Your task to perform on an android device: turn off picture-in-picture Image 0: 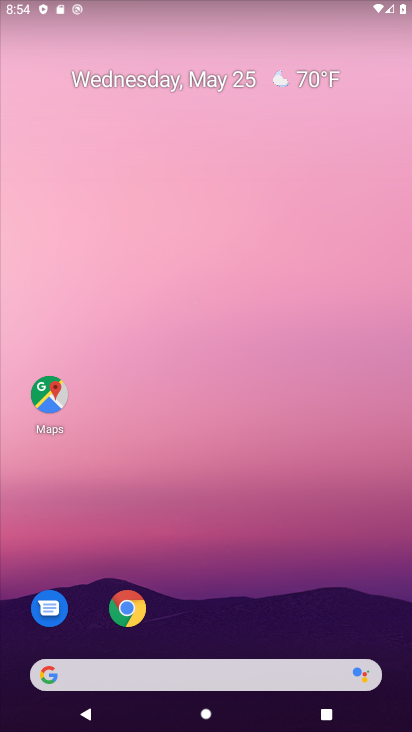
Step 0: drag from (274, 586) to (199, 9)
Your task to perform on an android device: turn off picture-in-picture Image 1: 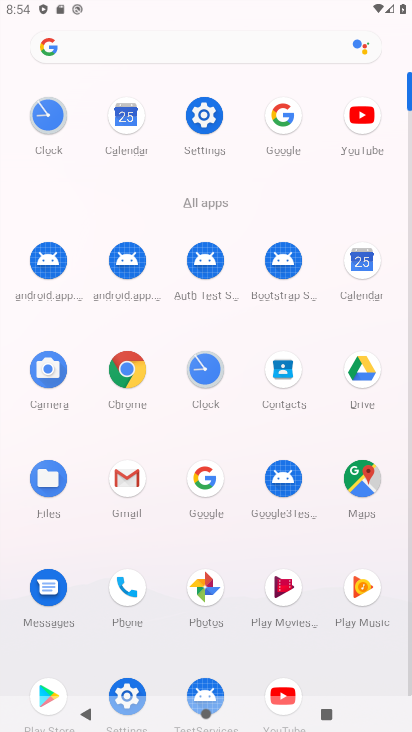
Step 1: click (217, 105)
Your task to perform on an android device: turn off picture-in-picture Image 2: 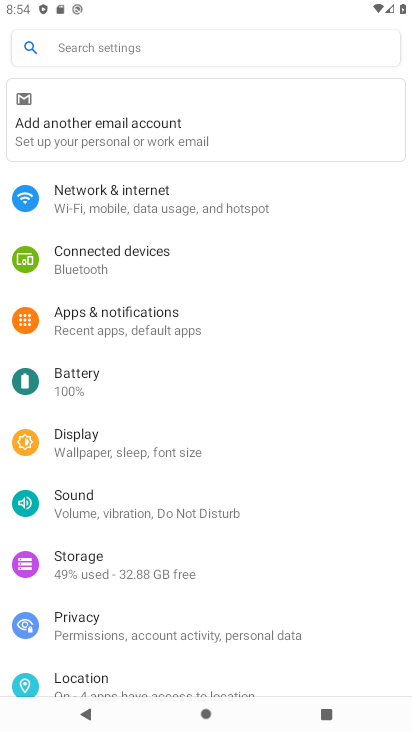
Step 2: click (159, 333)
Your task to perform on an android device: turn off picture-in-picture Image 3: 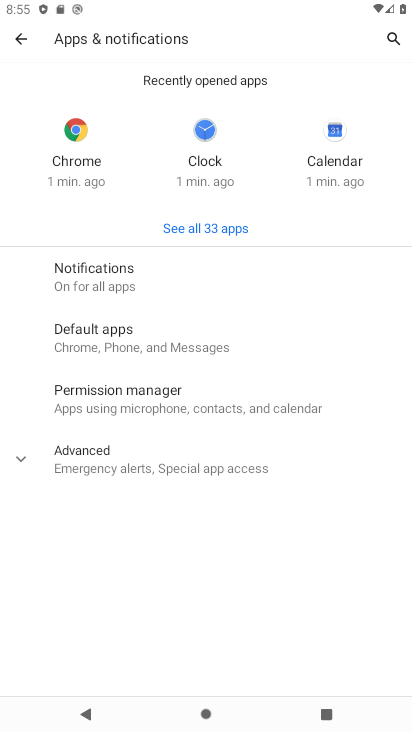
Step 3: click (180, 452)
Your task to perform on an android device: turn off picture-in-picture Image 4: 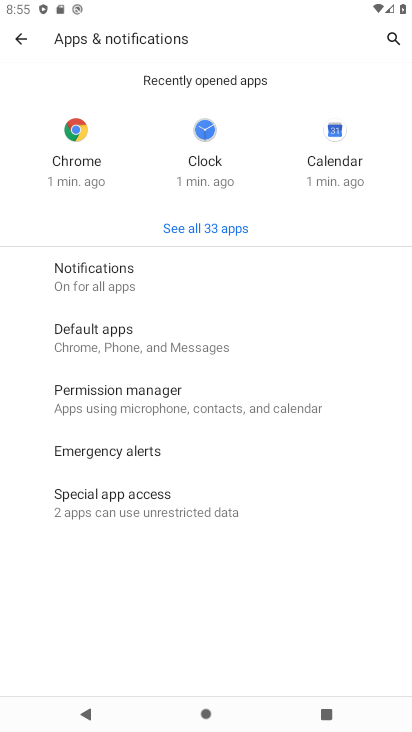
Step 4: click (167, 508)
Your task to perform on an android device: turn off picture-in-picture Image 5: 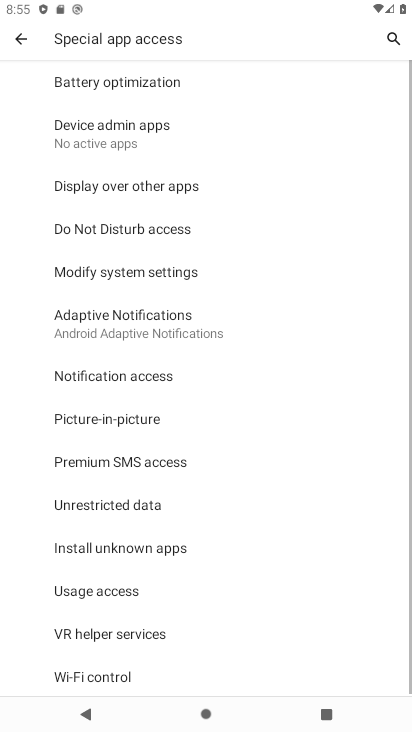
Step 5: click (152, 417)
Your task to perform on an android device: turn off picture-in-picture Image 6: 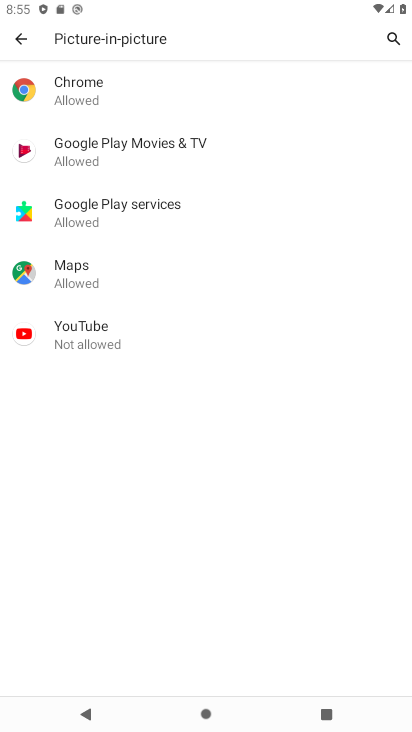
Step 6: click (217, 159)
Your task to perform on an android device: turn off picture-in-picture Image 7: 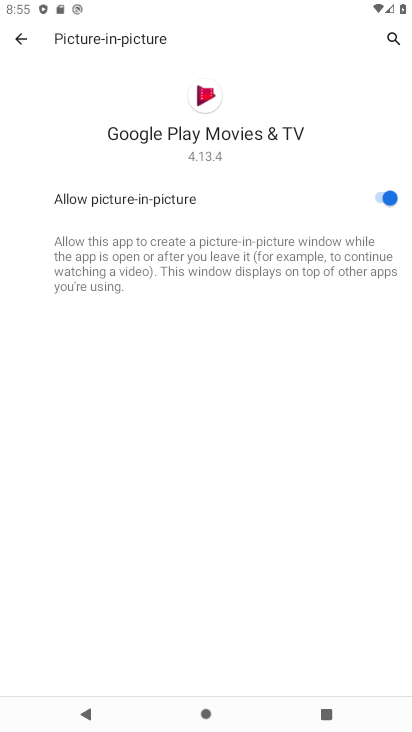
Step 7: click (371, 193)
Your task to perform on an android device: turn off picture-in-picture Image 8: 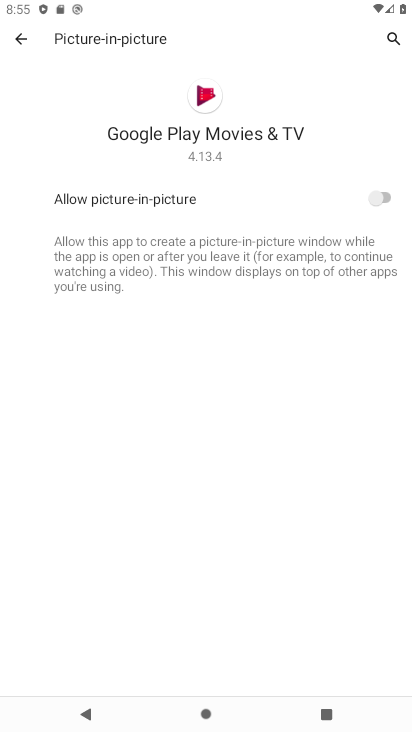
Step 8: task complete